Your task to perform on an android device: open a bookmark in the chrome app Image 0: 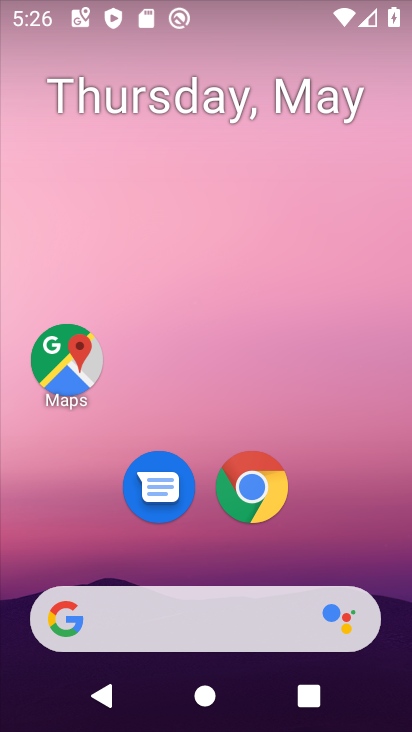
Step 0: click (255, 480)
Your task to perform on an android device: open a bookmark in the chrome app Image 1: 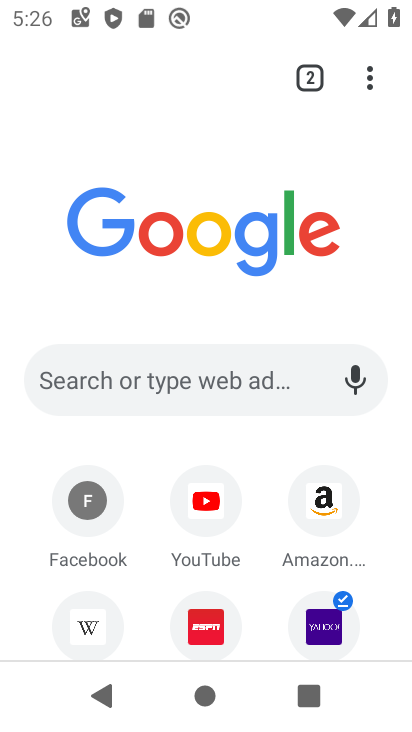
Step 1: click (368, 82)
Your task to perform on an android device: open a bookmark in the chrome app Image 2: 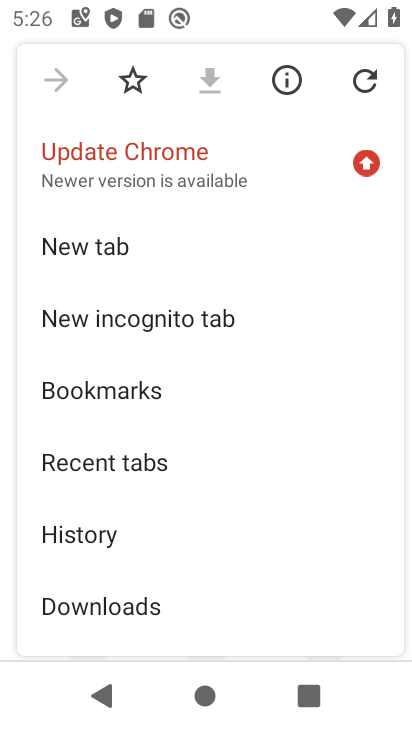
Step 2: click (171, 389)
Your task to perform on an android device: open a bookmark in the chrome app Image 3: 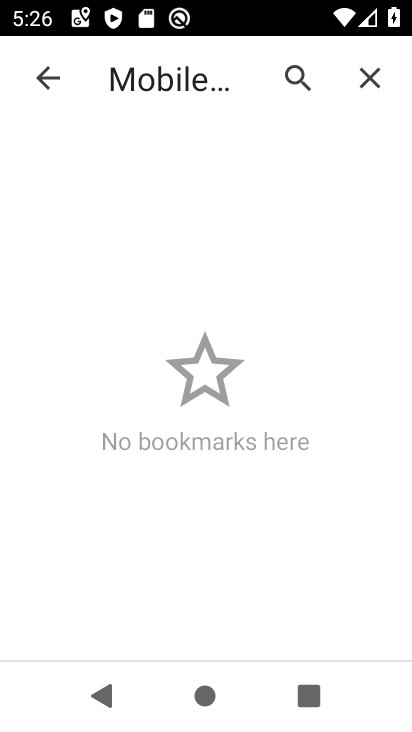
Step 3: task complete